Your task to perform on an android device: Check the weather Image 0: 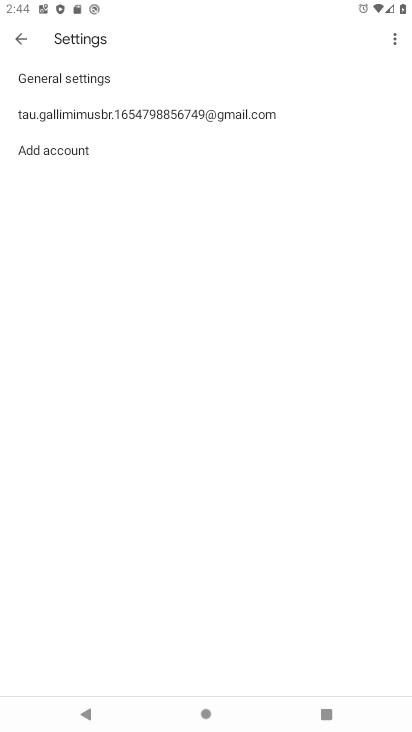
Step 0: press home button
Your task to perform on an android device: Check the weather Image 1: 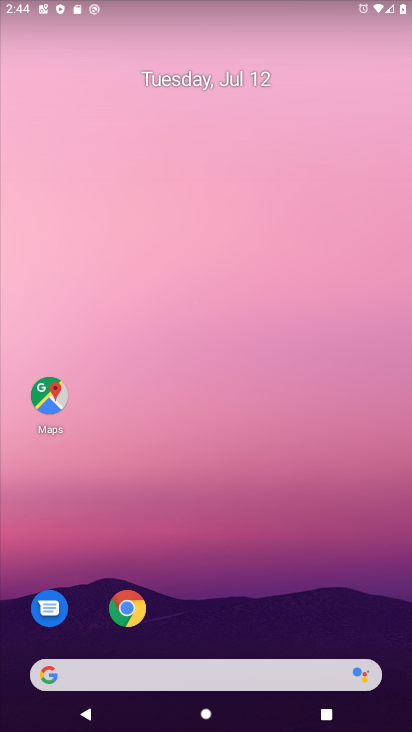
Step 1: drag from (259, 599) to (180, 1)
Your task to perform on an android device: Check the weather Image 2: 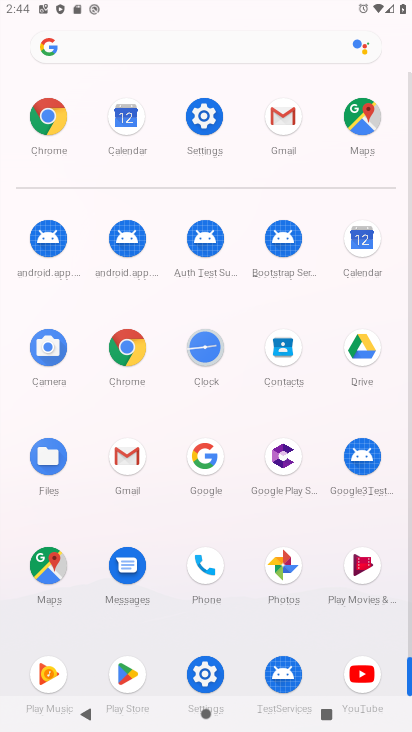
Step 2: click (128, 346)
Your task to perform on an android device: Check the weather Image 3: 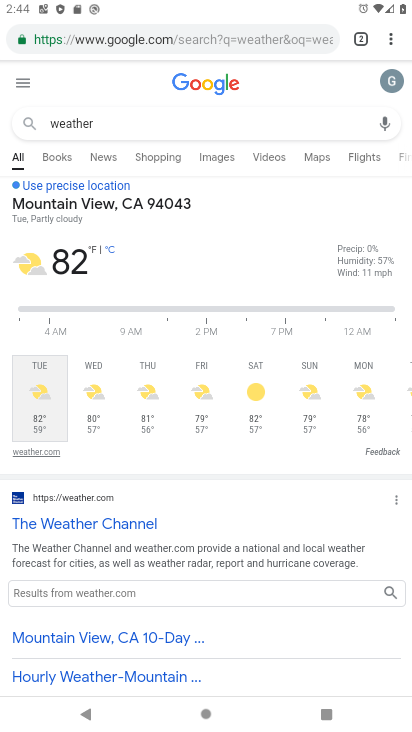
Step 3: task complete